Your task to perform on an android device: check data usage Image 0: 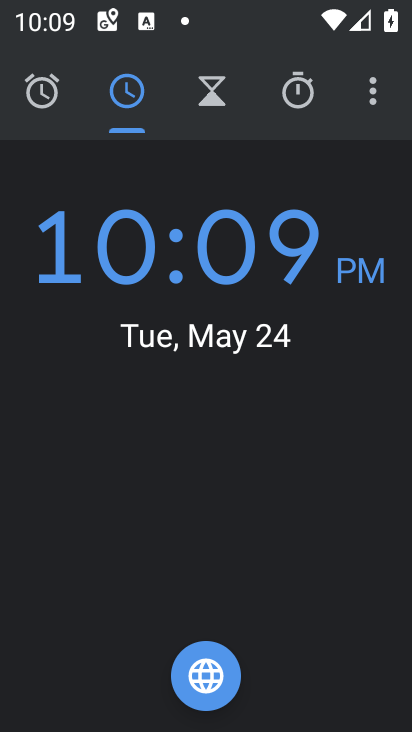
Step 0: press home button
Your task to perform on an android device: check data usage Image 1: 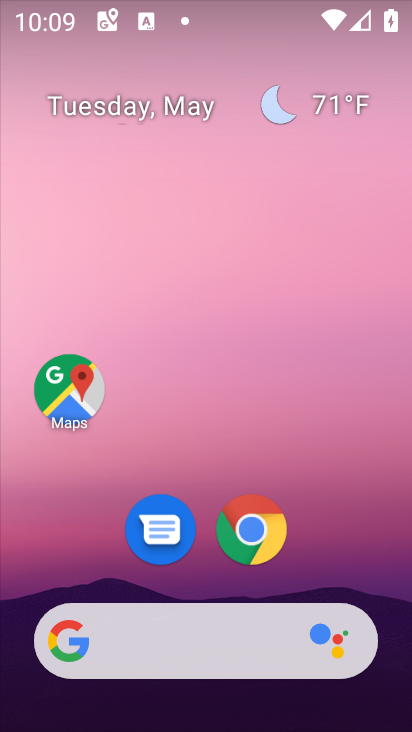
Step 1: drag from (350, 558) to (303, 163)
Your task to perform on an android device: check data usage Image 2: 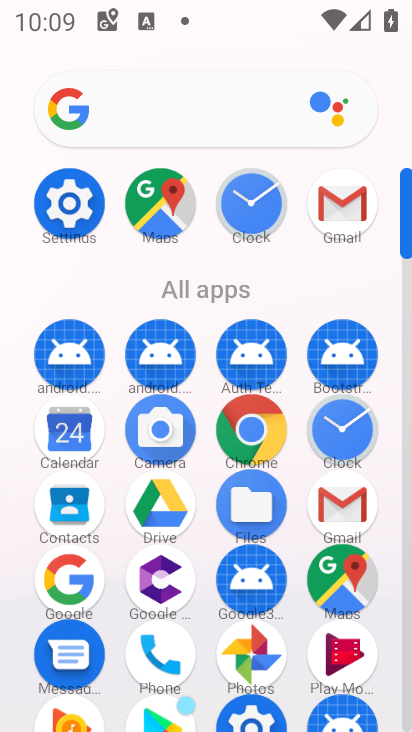
Step 2: click (53, 223)
Your task to perform on an android device: check data usage Image 3: 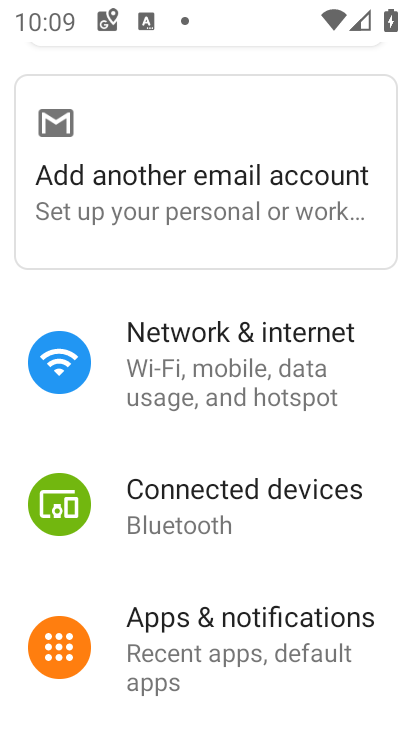
Step 3: click (231, 389)
Your task to perform on an android device: check data usage Image 4: 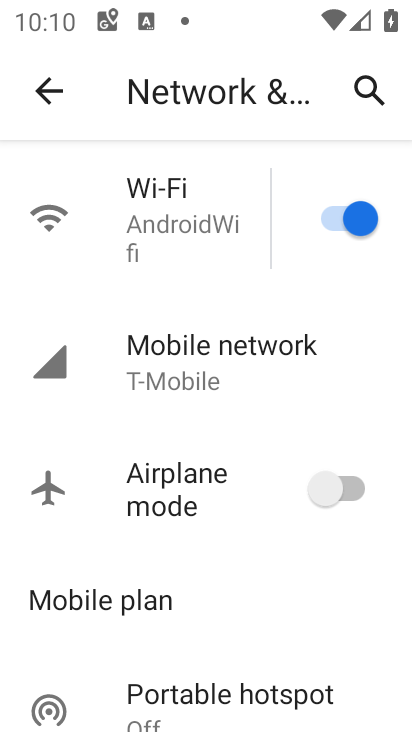
Step 4: click (215, 366)
Your task to perform on an android device: check data usage Image 5: 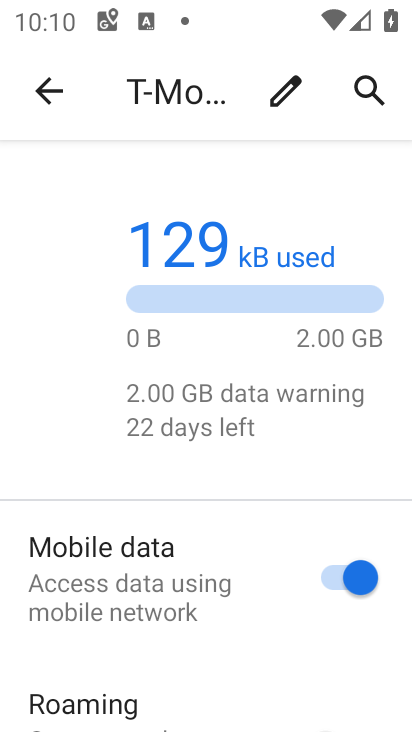
Step 5: drag from (225, 502) to (231, 190)
Your task to perform on an android device: check data usage Image 6: 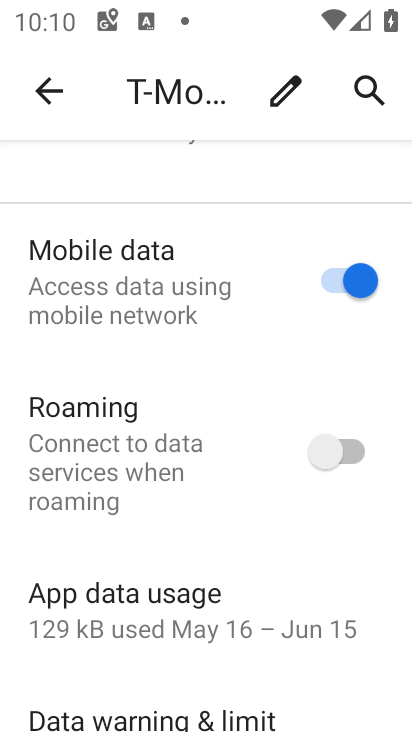
Step 6: click (214, 601)
Your task to perform on an android device: check data usage Image 7: 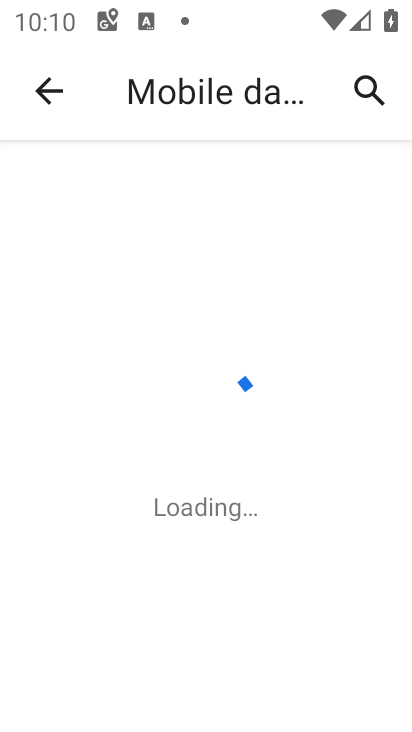
Step 7: task complete